Your task to perform on an android device: change the clock display to analog Image 0: 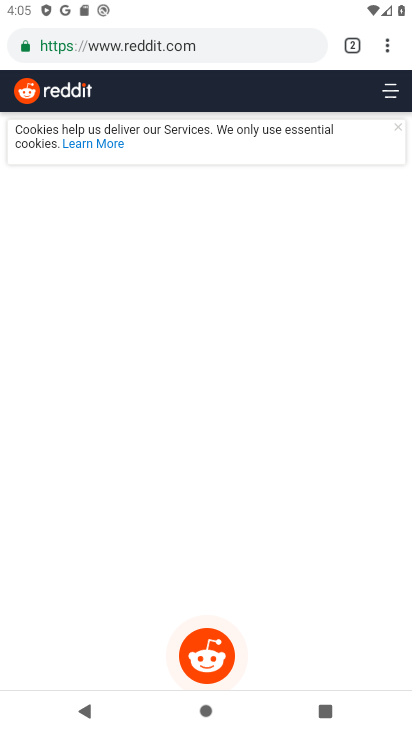
Step 0: press home button
Your task to perform on an android device: change the clock display to analog Image 1: 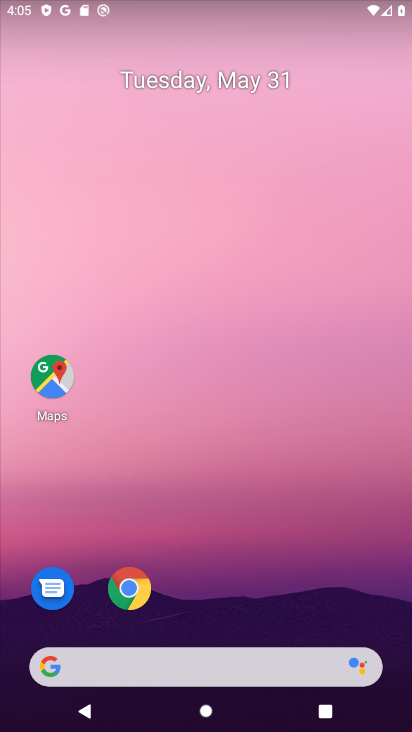
Step 1: drag from (183, 630) to (170, 1)
Your task to perform on an android device: change the clock display to analog Image 2: 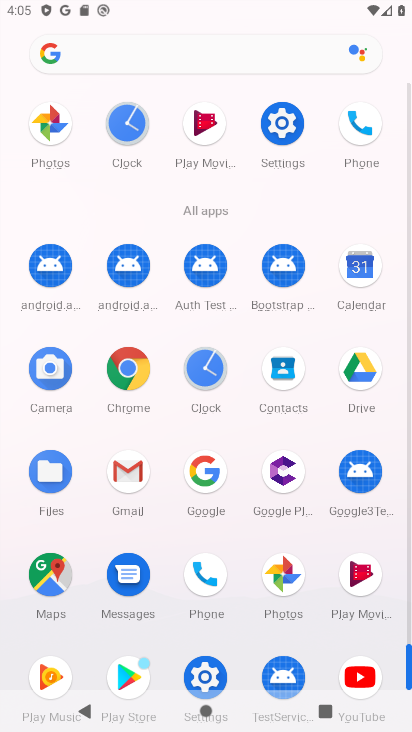
Step 2: click (141, 123)
Your task to perform on an android device: change the clock display to analog Image 3: 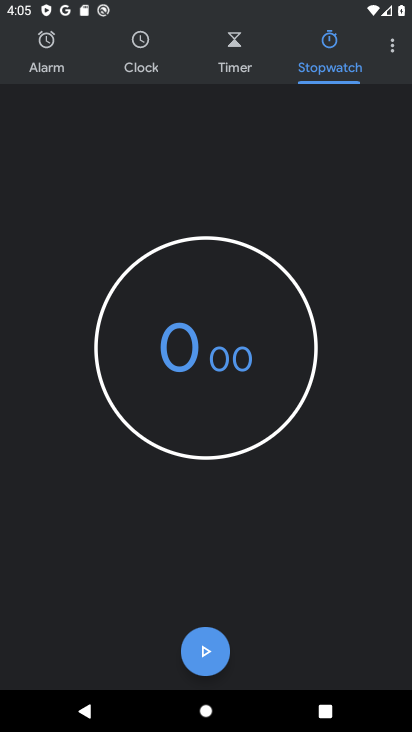
Step 3: click (391, 35)
Your task to perform on an android device: change the clock display to analog Image 4: 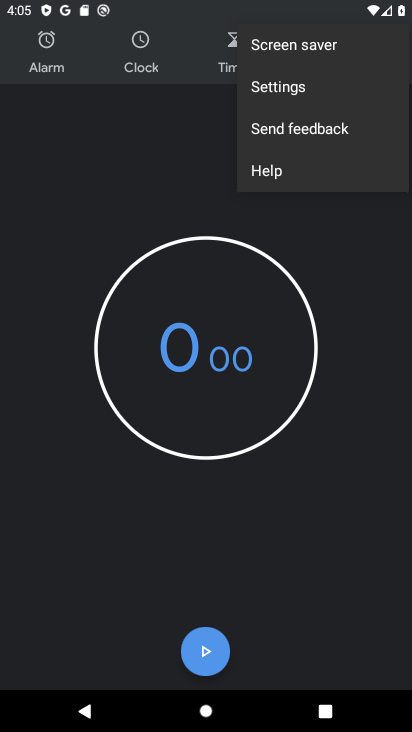
Step 4: click (305, 99)
Your task to perform on an android device: change the clock display to analog Image 5: 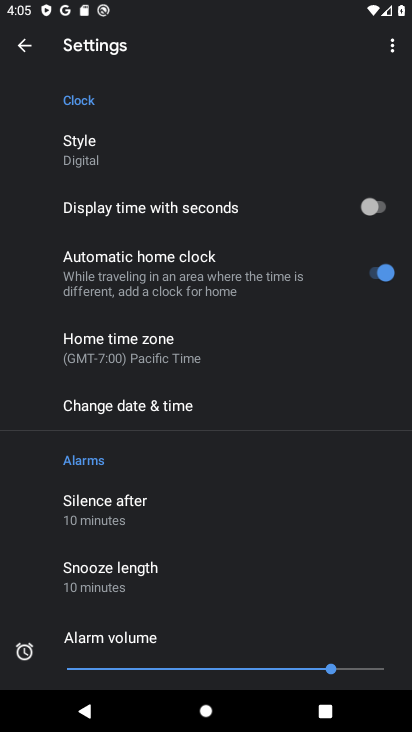
Step 5: click (155, 166)
Your task to perform on an android device: change the clock display to analog Image 6: 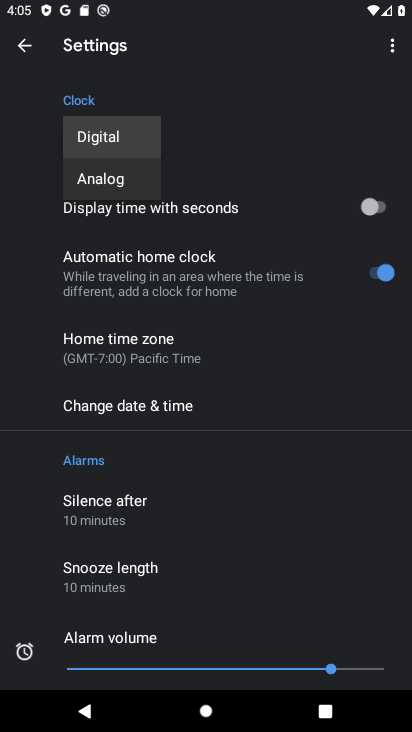
Step 6: click (149, 177)
Your task to perform on an android device: change the clock display to analog Image 7: 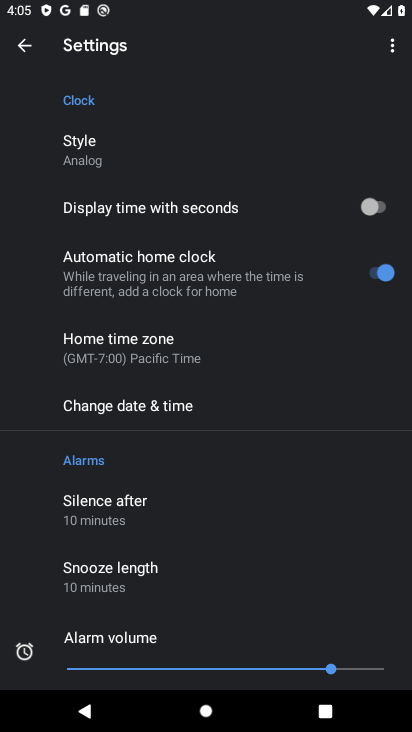
Step 7: task complete